Your task to perform on an android device: Open the Play Movies app and select the watchlist tab. Image 0: 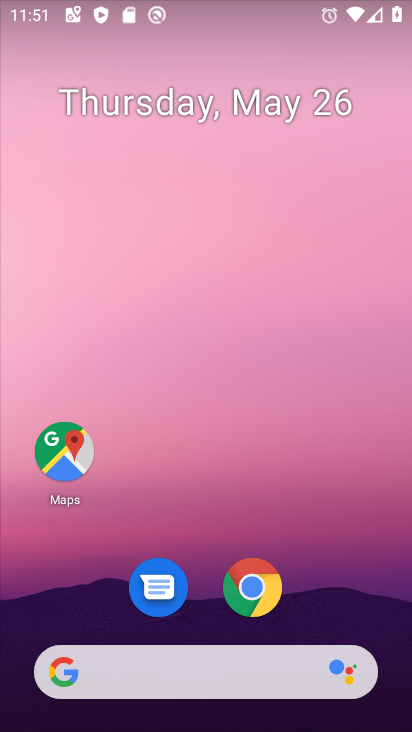
Step 0: drag from (263, 584) to (289, 0)
Your task to perform on an android device: Open the Play Movies app and select the watchlist tab. Image 1: 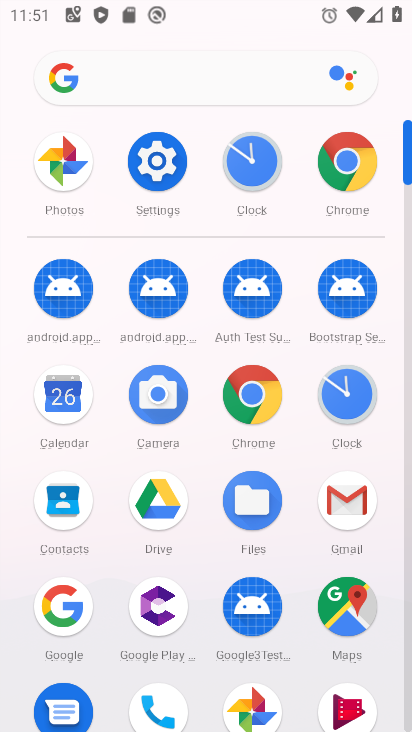
Step 1: click (340, 709)
Your task to perform on an android device: Open the Play Movies app and select the watchlist tab. Image 2: 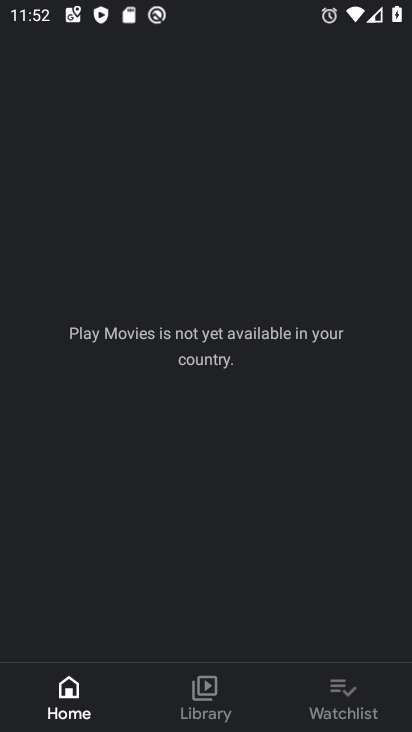
Step 2: click (344, 722)
Your task to perform on an android device: Open the Play Movies app and select the watchlist tab. Image 3: 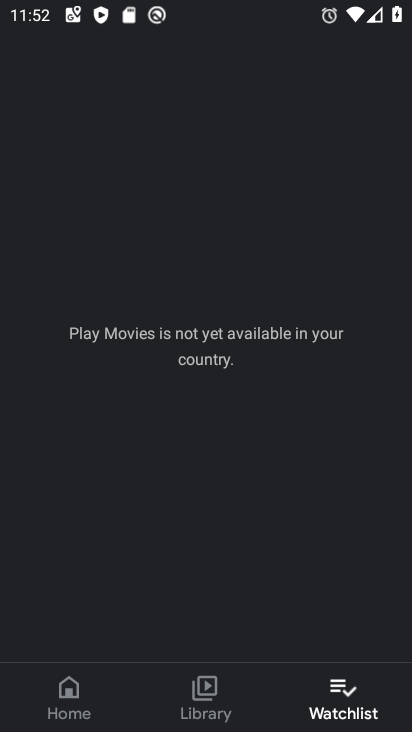
Step 3: task complete